Your task to perform on an android device: toggle translation in the chrome app Image 0: 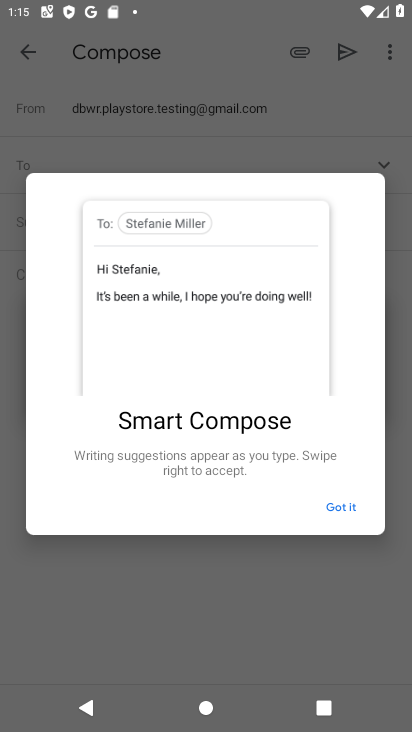
Step 0: press home button
Your task to perform on an android device: toggle translation in the chrome app Image 1: 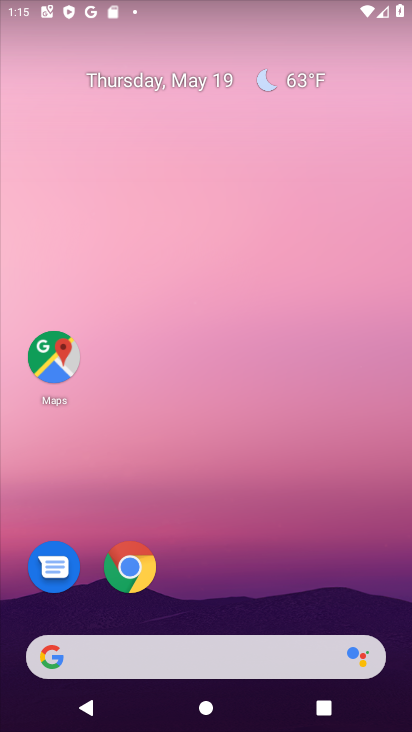
Step 1: drag from (254, 524) to (263, 112)
Your task to perform on an android device: toggle translation in the chrome app Image 2: 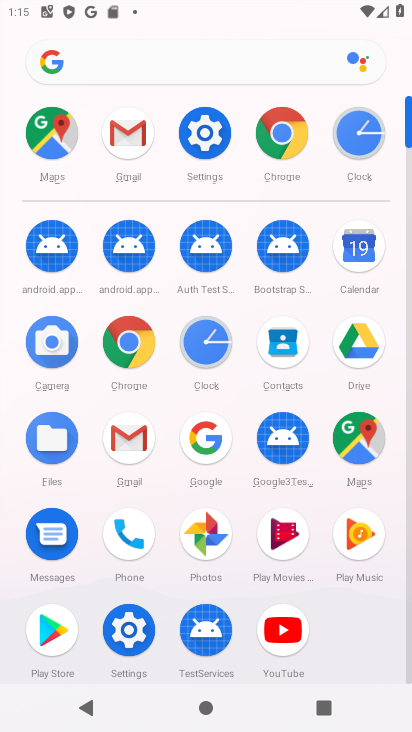
Step 2: click (291, 144)
Your task to perform on an android device: toggle translation in the chrome app Image 3: 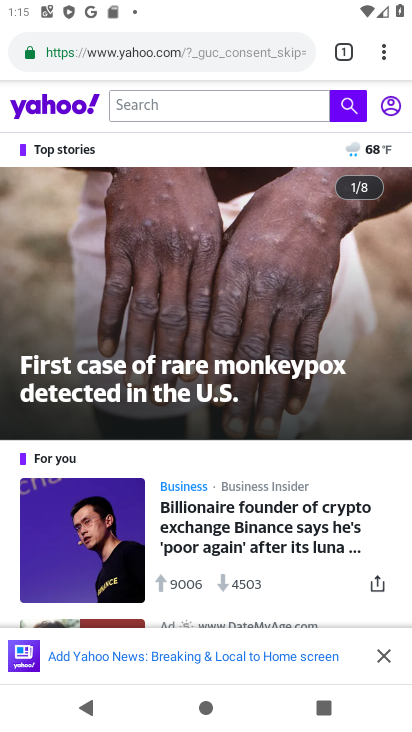
Step 3: drag from (388, 50) to (264, 614)
Your task to perform on an android device: toggle translation in the chrome app Image 4: 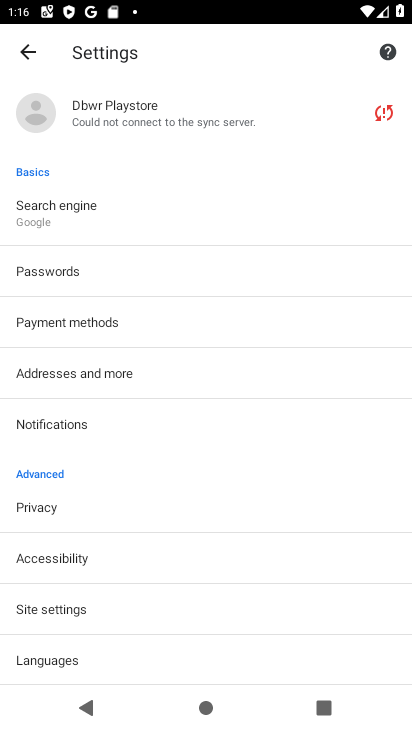
Step 4: drag from (114, 619) to (126, 235)
Your task to perform on an android device: toggle translation in the chrome app Image 5: 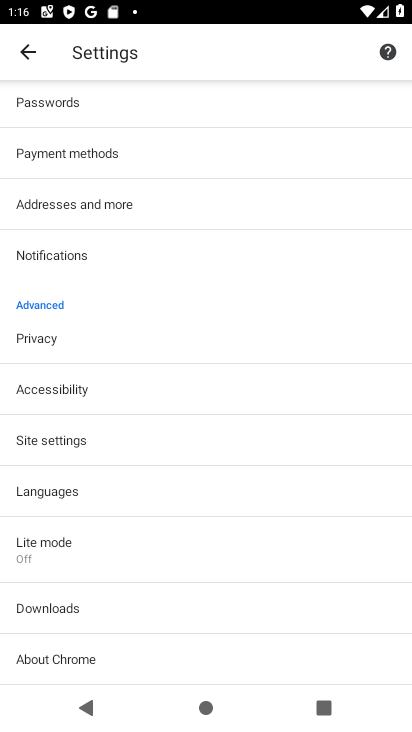
Step 5: click (62, 497)
Your task to perform on an android device: toggle translation in the chrome app Image 6: 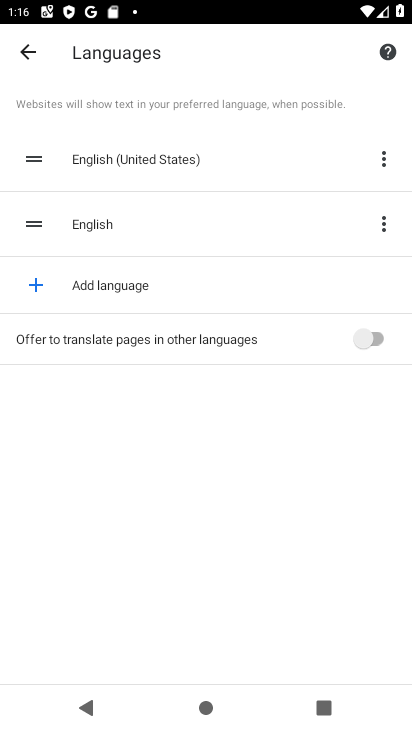
Step 6: click (385, 340)
Your task to perform on an android device: toggle translation in the chrome app Image 7: 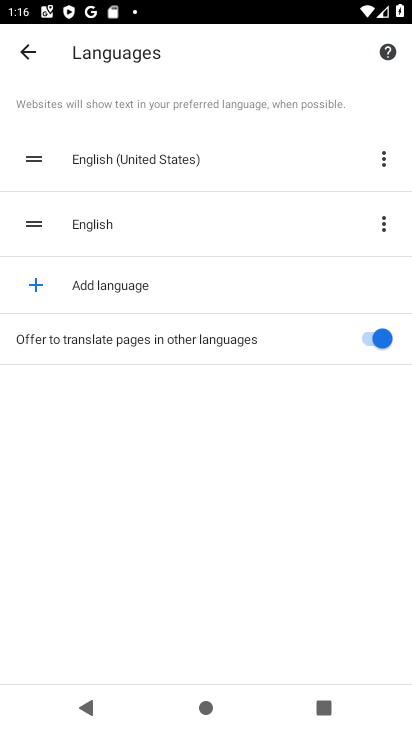
Step 7: task complete